Your task to perform on an android device: Open calendar and show me the fourth week of next month Image 0: 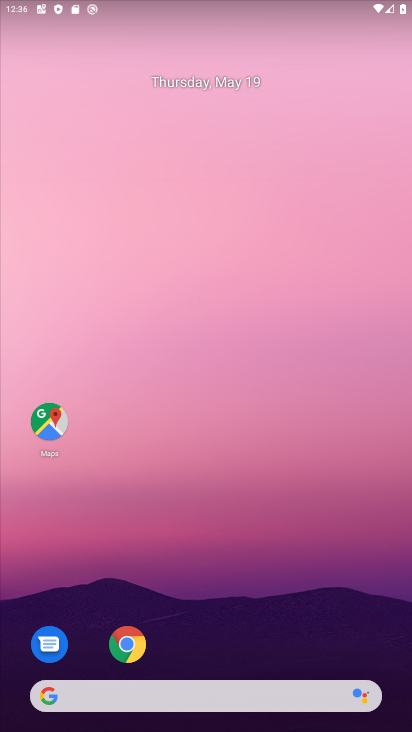
Step 0: drag from (311, 637) to (319, 196)
Your task to perform on an android device: Open calendar and show me the fourth week of next month Image 1: 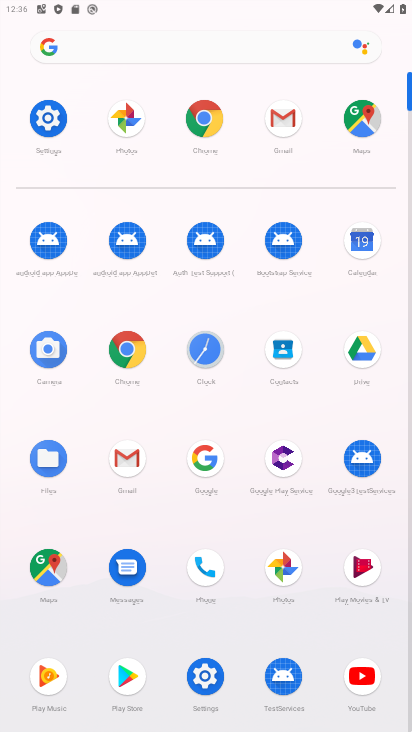
Step 1: click (363, 266)
Your task to perform on an android device: Open calendar and show me the fourth week of next month Image 2: 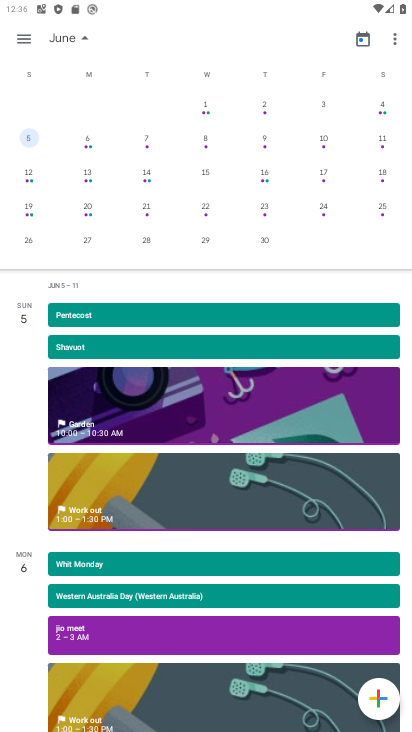
Step 2: click (30, 208)
Your task to perform on an android device: Open calendar and show me the fourth week of next month Image 3: 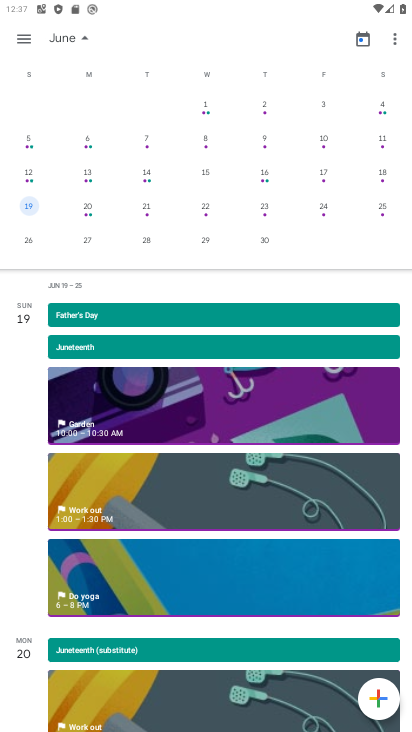
Step 3: task complete